Your task to perform on an android device: turn off data saver in the chrome app Image 0: 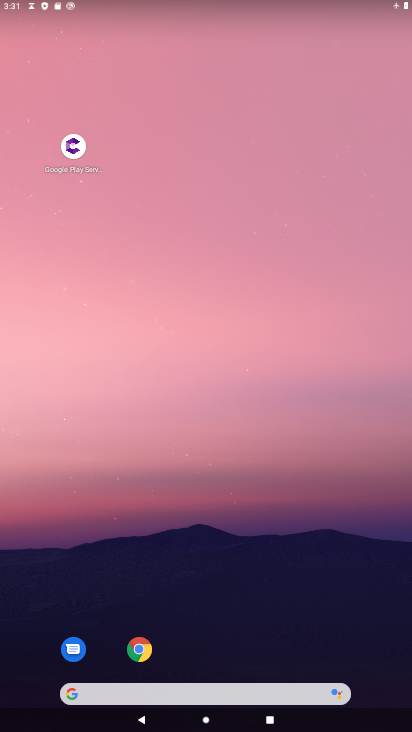
Step 0: click (140, 649)
Your task to perform on an android device: turn off data saver in the chrome app Image 1: 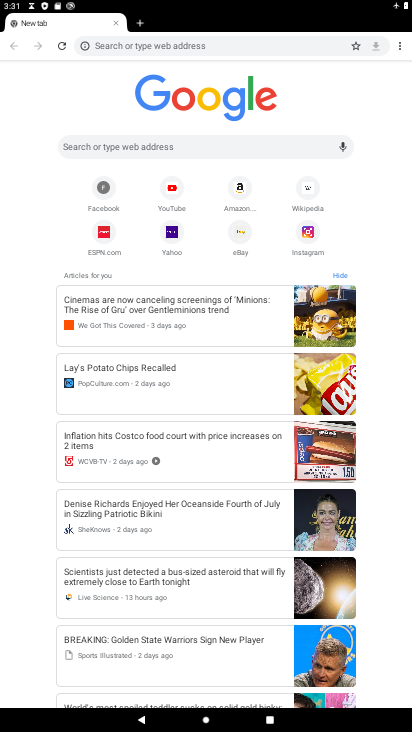
Step 1: drag from (397, 43) to (338, 207)
Your task to perform on an android device: turn off data saver in the chrome app Image 2: 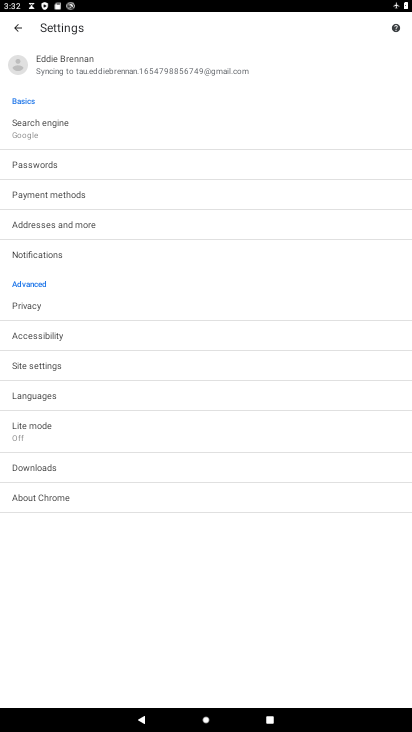
Step 2: click (78, 435)
Your task to perform on an android device: turn off data saver in the chrome app Image 3: 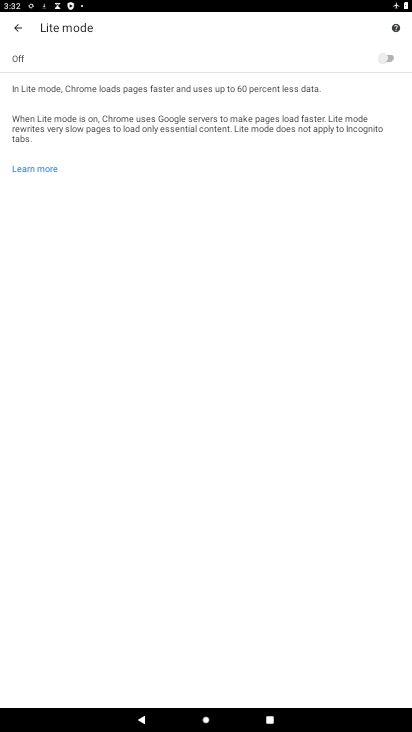
Step 3: task complete